Your task to perform on an android device: Open calendar and show me the third week of next month Image 0: 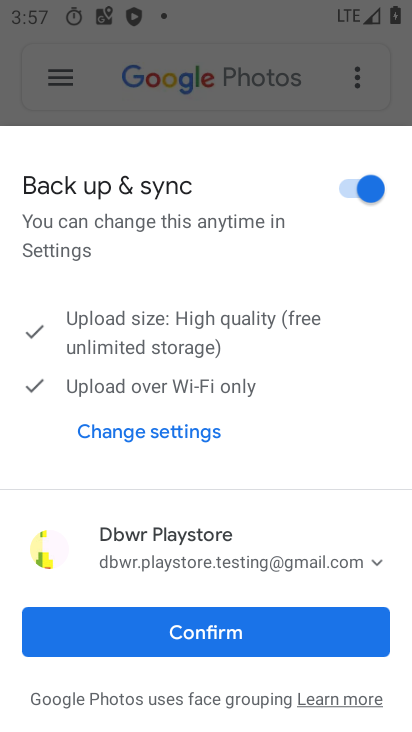
Step 0: press home button
Your task to perform on an android device: Open calendar and show me the third week of next month Image 1: 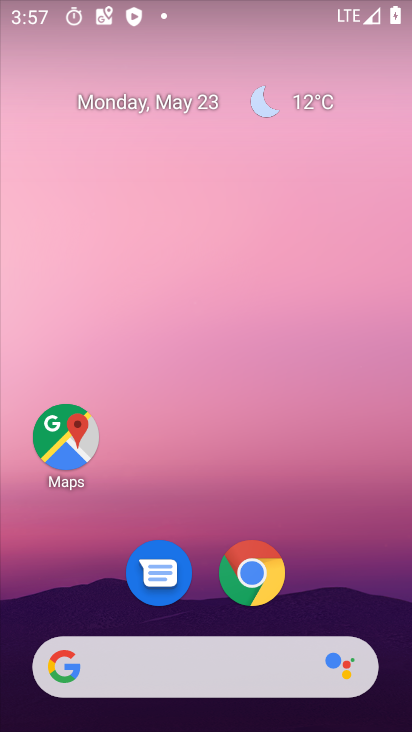
Step 1: drag from (55, 390) to (165, 183)
Your task to perform on an android device: Open calendar and show me the third week of next month Image 2: 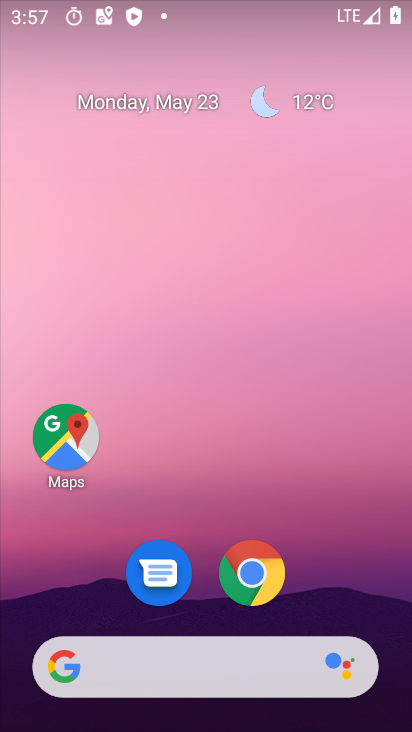
Step 2: drag from (33, 608) to (319, 115)
Your task to perform on an android device: Open calendar and show me the third week of next month Image 3: 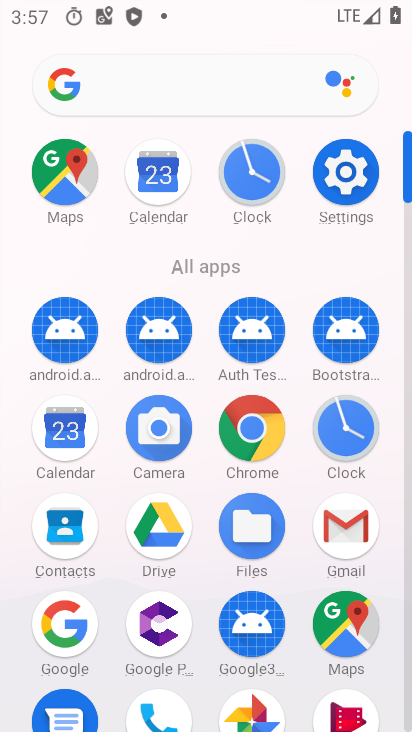
Step 3: click (162, 173)
Your task to perform on an android device: Open calendar and show me the third week of next month Image 4: 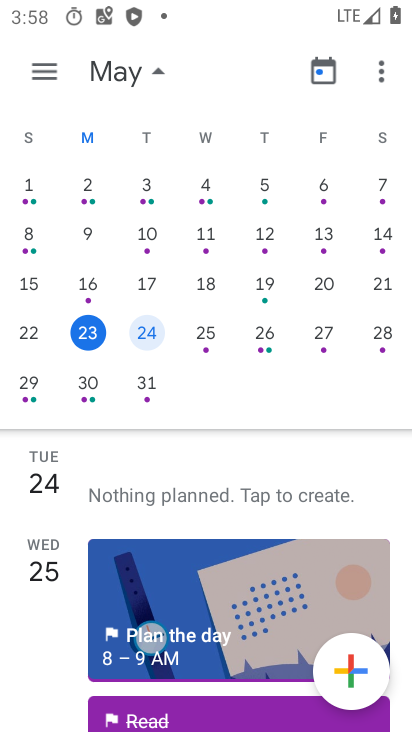
Step 4: drag from (406, 271) to (0, 258)
Your task to perform on an android device: Open calendar and show me the third week of next month Image 5: 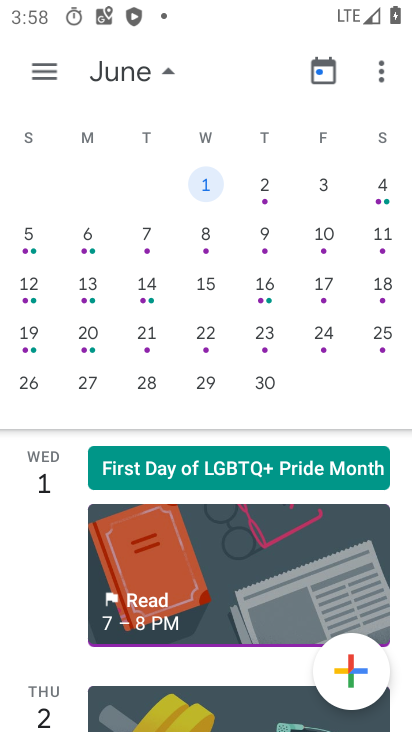
Step 5: click (209, 238)
Your task to perform on an android device: Open calendar and show me the third week of next month Image 6: 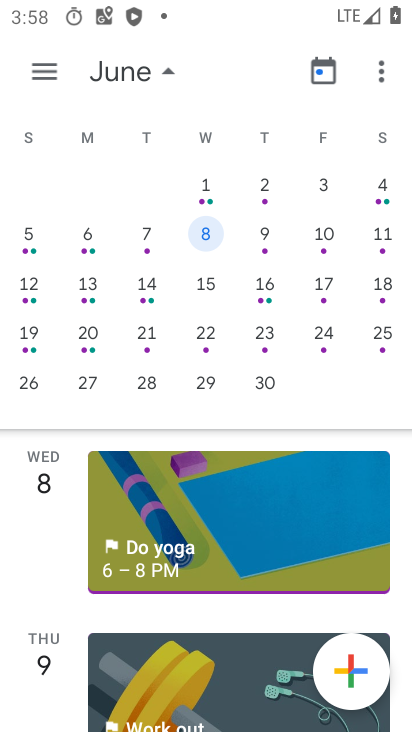
Step 6: click (201, 289)
Your task to perform on an android device: Open calendar and show me the third week of next month Image 7: 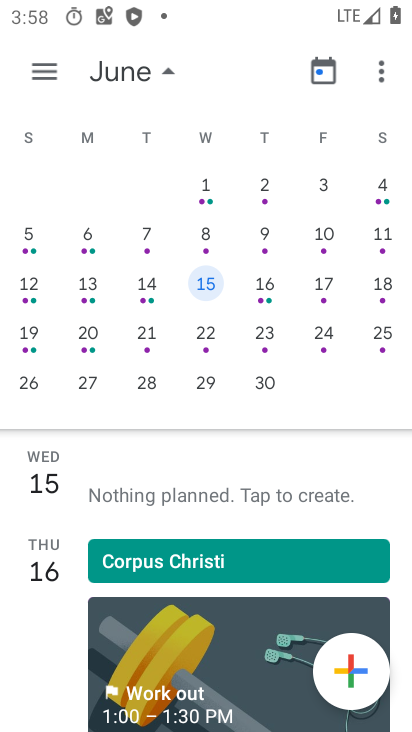
Step 7: task complete